Your task to perform on an android device: turn on priority inbox in the gmail app Image 0: 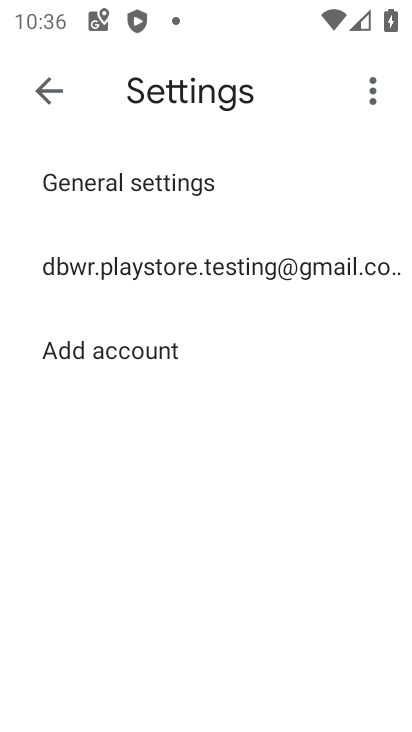
Step 0: press home button
Your task to perform on an android device: turn on priority inbox in the gmail app Image 1: 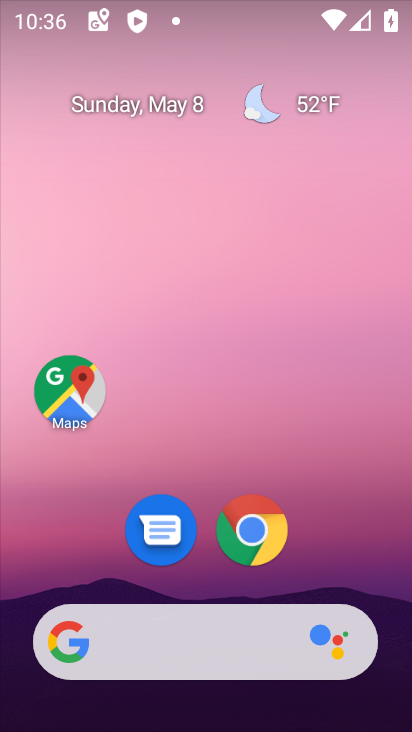
Step 1: drag from (362, 474) to (325, 171)
Your task to perform on an android device: turn on priority inbox in the gmail app Image 2: 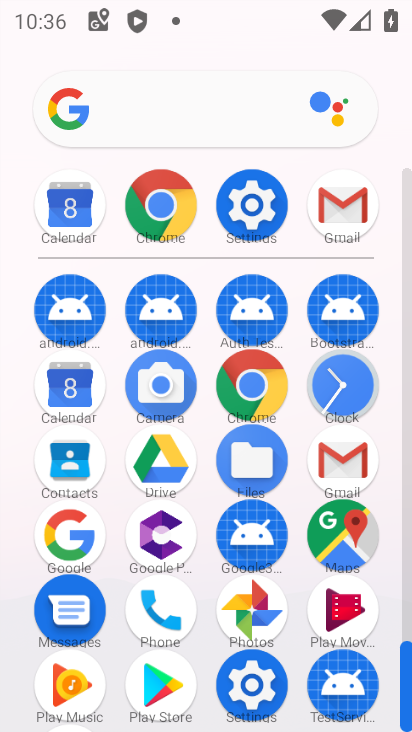
Step 2: click (359, 201)
Your task to perform on an android device: turn on priority inbox in the gmail app Image 3: 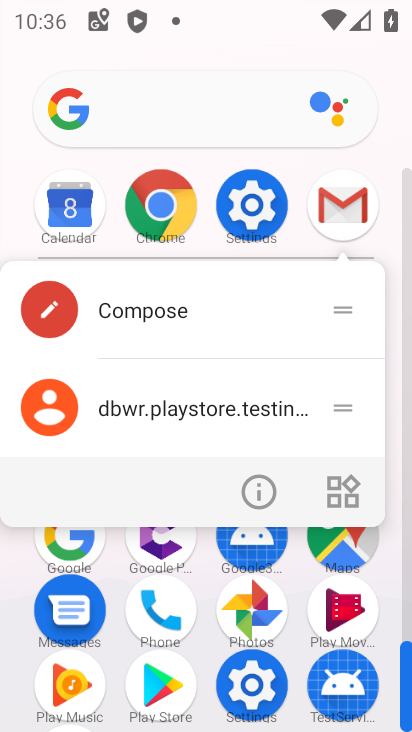
Step 3: click (343, 220)
Your task to perform on an android device: turn on priority inbox in the gmail app Image 4: 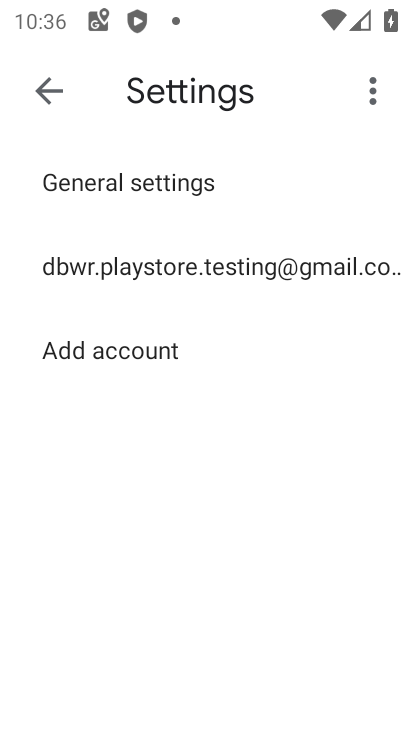
Step 4: click (206, 272)
Your task to perform on an android device: turn on priority inbox in the gmail app Image 5: 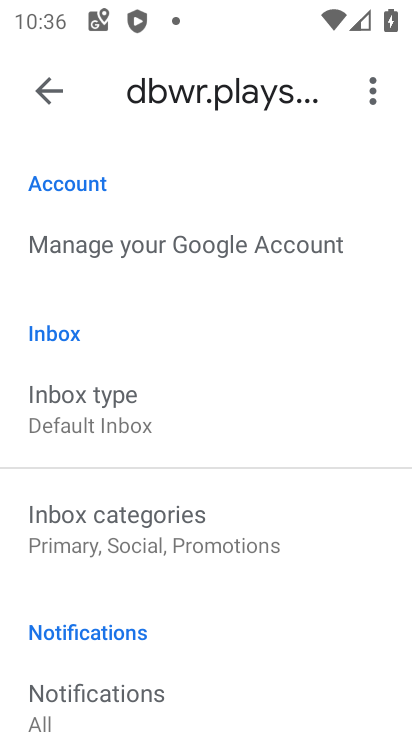
Step 5: click (136, 424)
Your task to perform on an android device: turn on priority inbox in the gmail app Image 6: 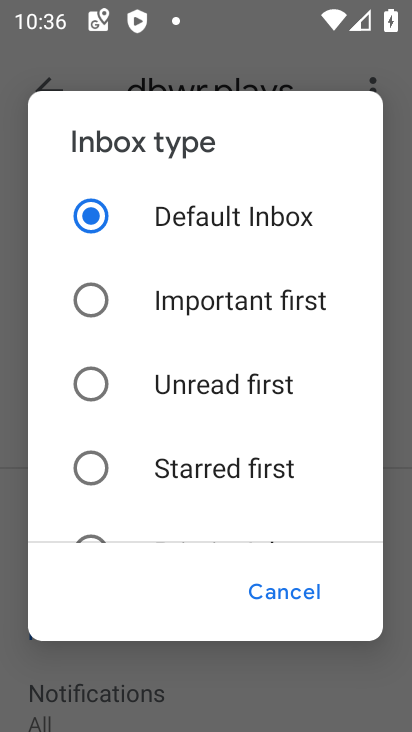
Step 6: drag from (174, 434) to (201, 196)
Your task to perform on an android device: turn on priority inbox in the gmail app Image 7: 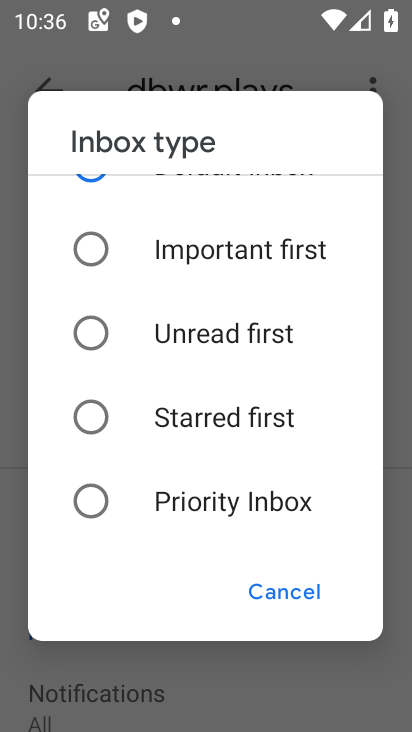
Step 7: click (180, 510)
Your task to perform on an android device: turn on priority inbox in the gmail app Image 8: 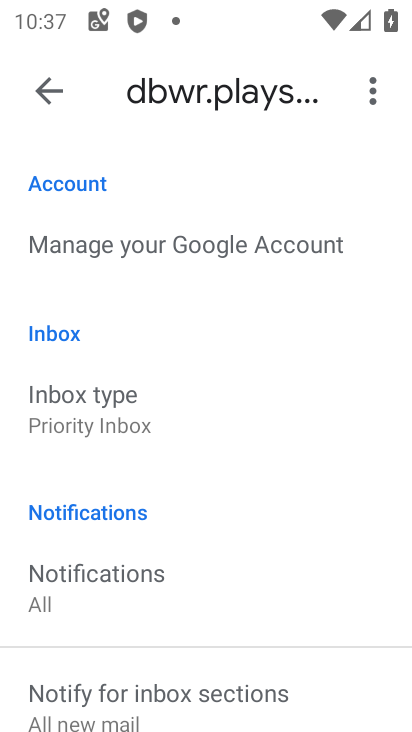
Step 8: task complete